Your task to perform on an android device: Open Android settings Image 0: 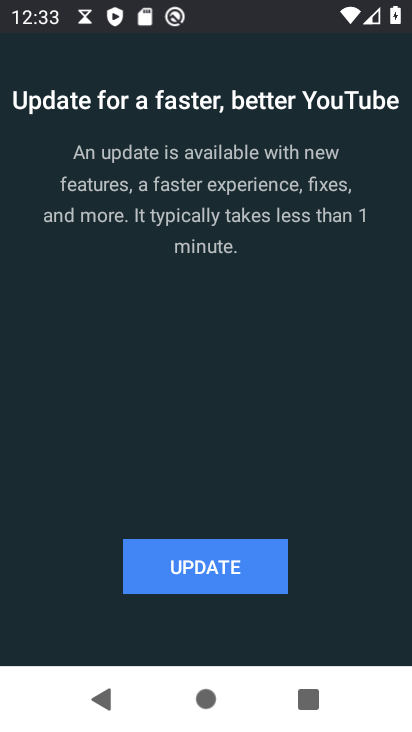
Step 0: press home button
Your task to perform on an android device: Open Android settings Image 1: 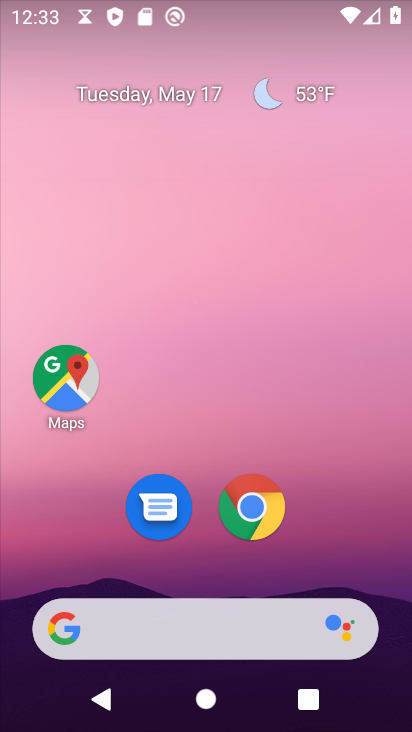
Step 1: drag from (306, 540) to (241, 147)
Your task to perform on an android device: Open Android settings Image 2: 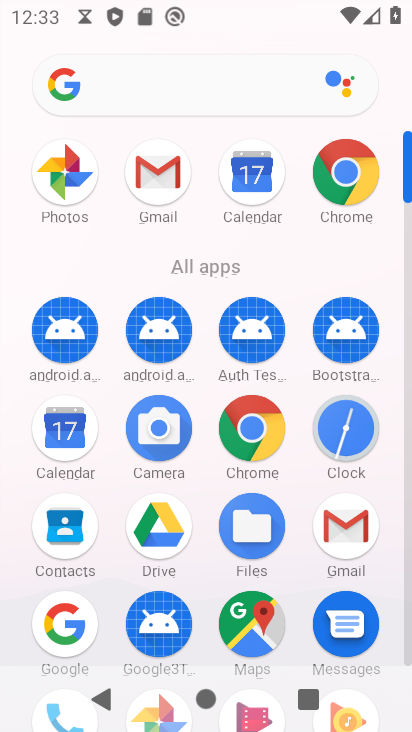
Step 2: drag from (199, 582) to (203, 343)
Your task to perform on an android device: Open Android settings Image 3: 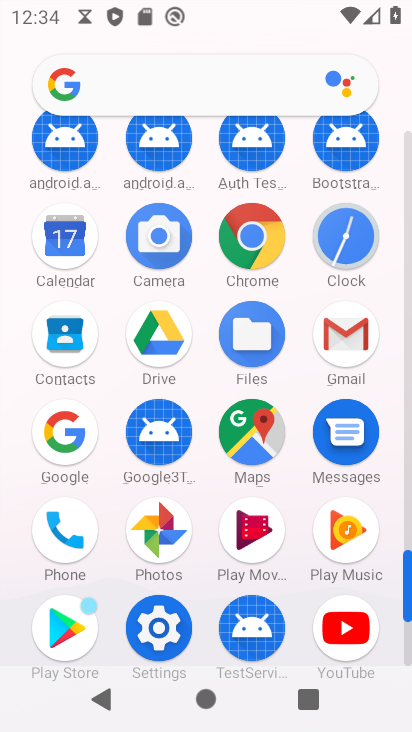
Step 3: click (154, 622)
Your task to perform on an android device: Open Android settings Image 4: 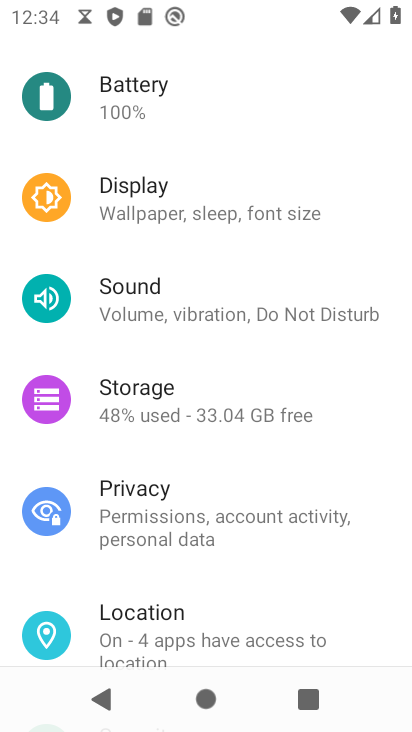
Step 4: drag from (159, 628) to (148, 372)
Your task to perform on an android device: Open Android settings Image 5: 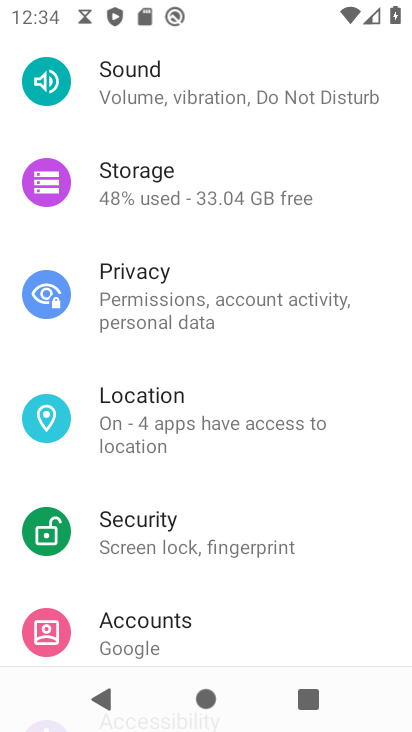
Step 5: drag from (155, 589) to (140, 444)
Your task to perform on an android device: Open Android settings Image 6: 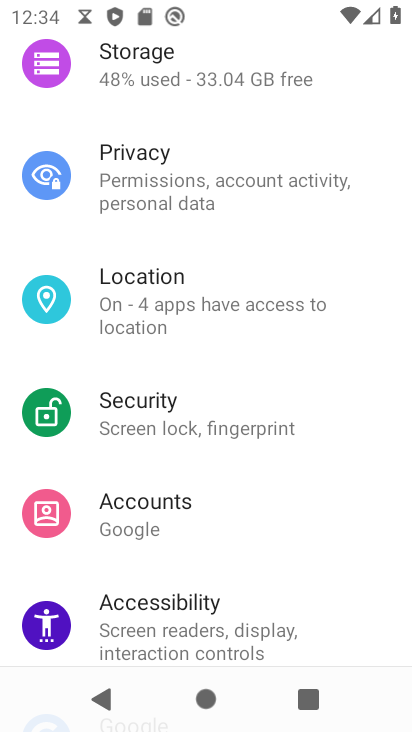
Step 6: drag from (151, 615) to (154, 473)
Your task to perform on an android device: Open Android settings Image 7: 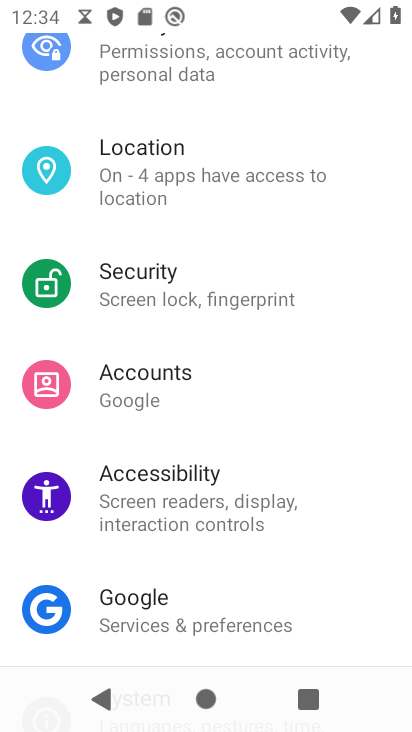
Step 7: drag from (160, 618) to (154, 454)
Your task to perform on an android device: Open Android settings Image 8: 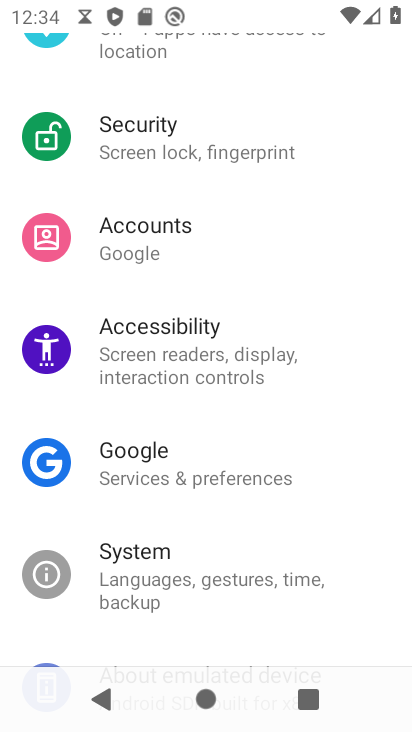
Step 8: click (152, 601)
Your task to perform on an android device: Open Android settings Image 9: 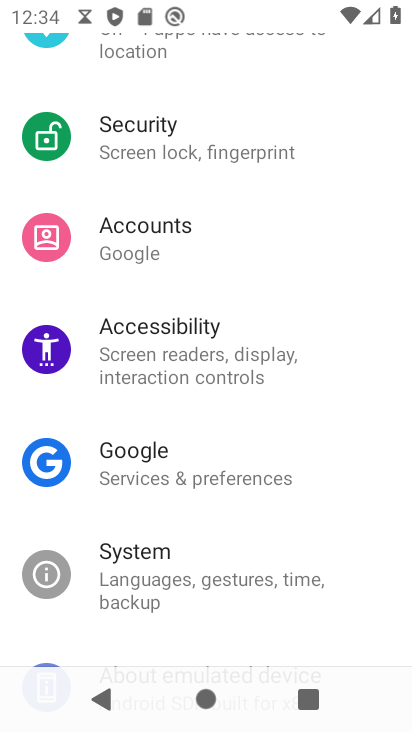
Step 9: click (155, 591)
Your task to perform on an android device: Open Android settings Image 10: 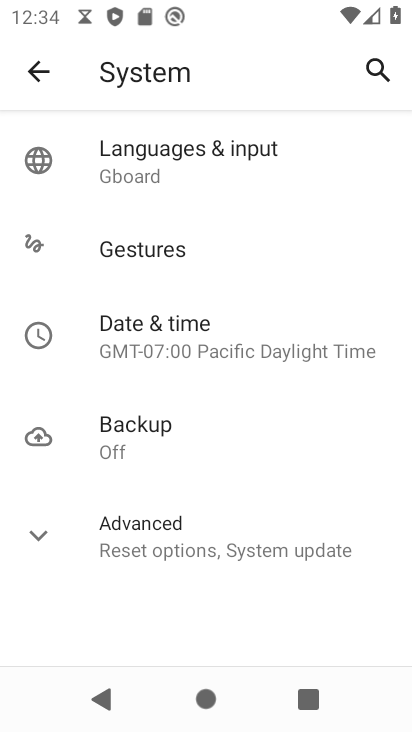
Step 10: task complete